Your task to perform on an android device: set an alarm Image 0: 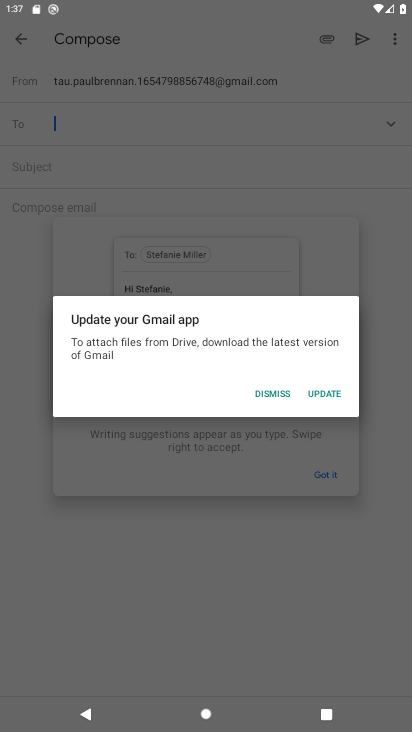
Step 0: press home button
Your task to perform on an android device: set an alarm Image 1: 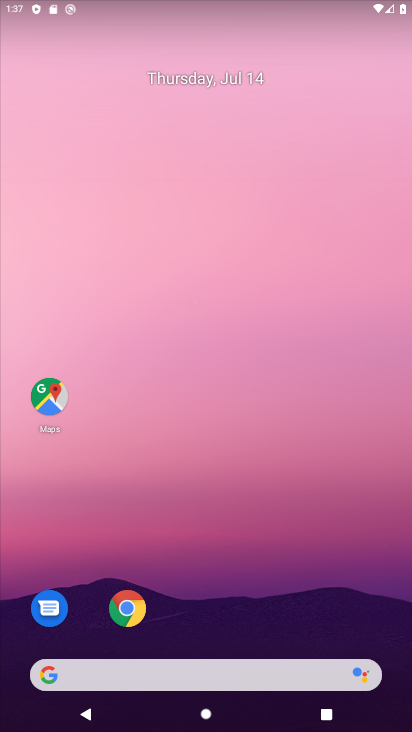
Step 1: drag from (231, 668) to (290, 260)
Your task to perform on an android device: set an alarm Image 2: 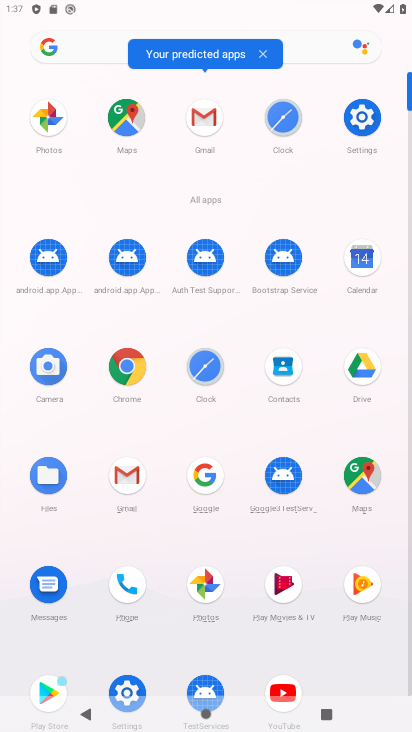
Step 2: click (284, 118)
Your task to perform on an android device: set an alarm Image 3: 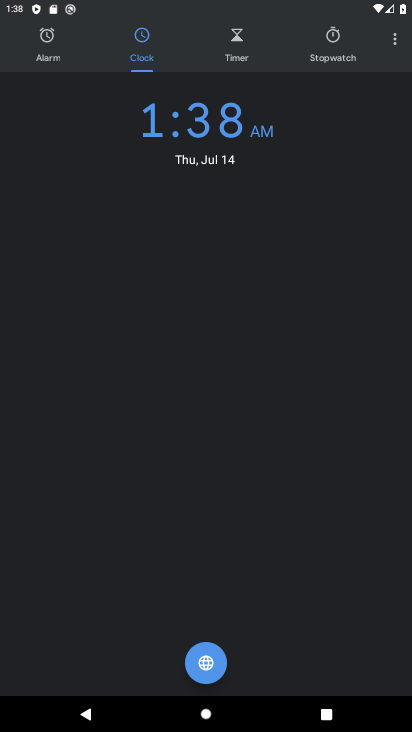
Step 3: click (47, 34)
Your task to perform on an android device: set an alarm Image 4: 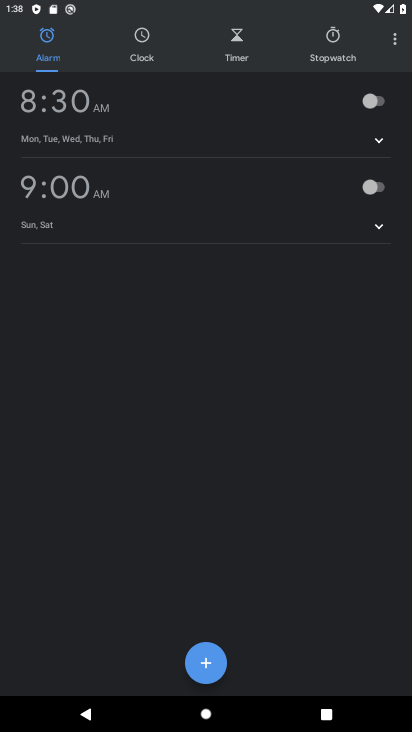
Step 4: click (205, 662)
Your task to perform on an android device: set an alarm Image 5: 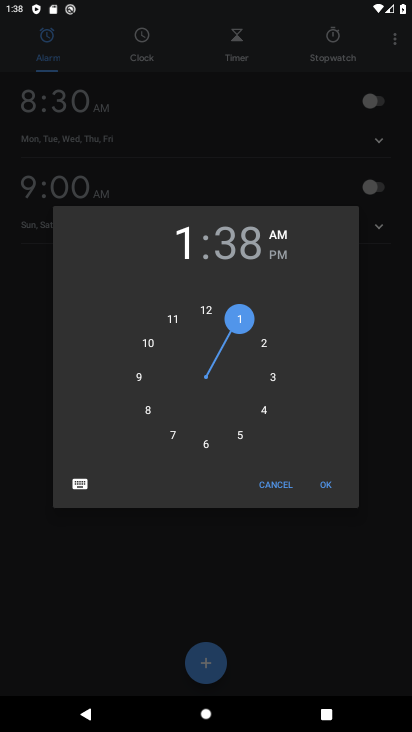
Step 5: click (204, 445)
Your task to perform on an android device: set an alarm Image 6: 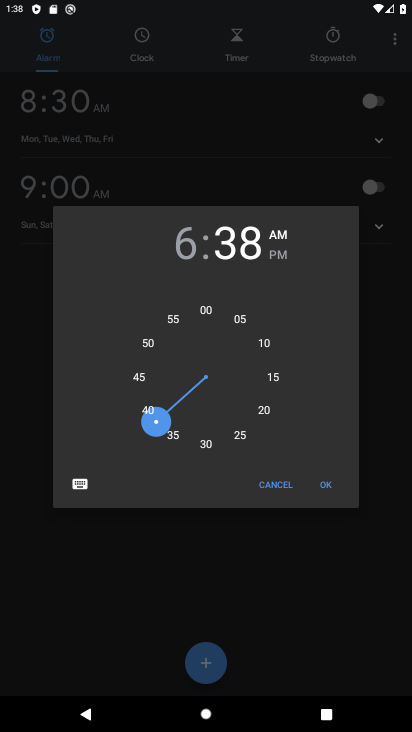
Step 6: click (204, 445)
Your task to perform on an android device: set an alarm Image 7: 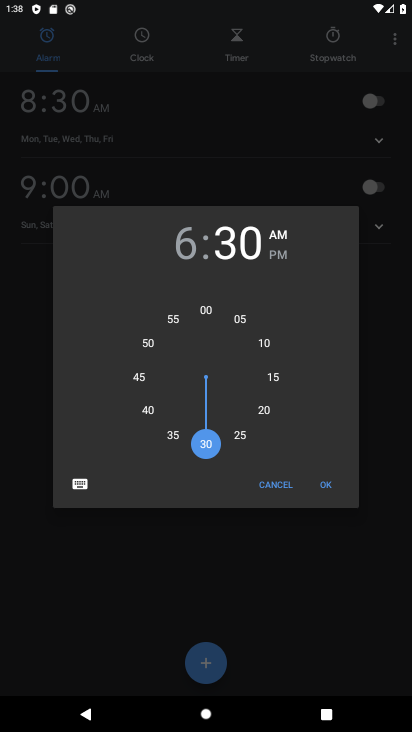
Step 7: click (282, 257)
Your task to perform on an android device: set an alarm Image 8: 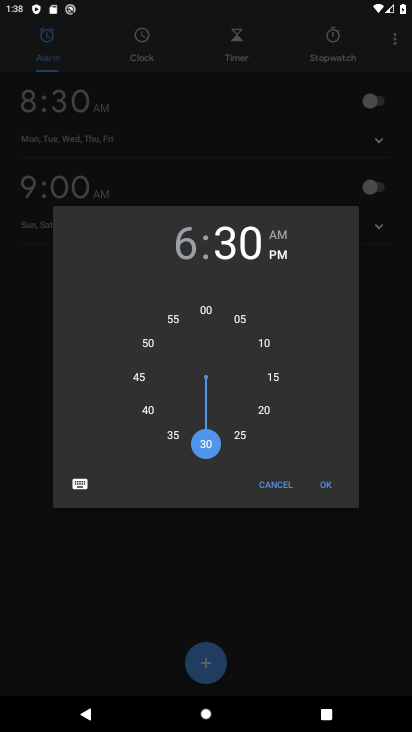
Step 8: task complete